Your task to perform on an android device: open the mobile data screen to see how much data has been used Image 0: 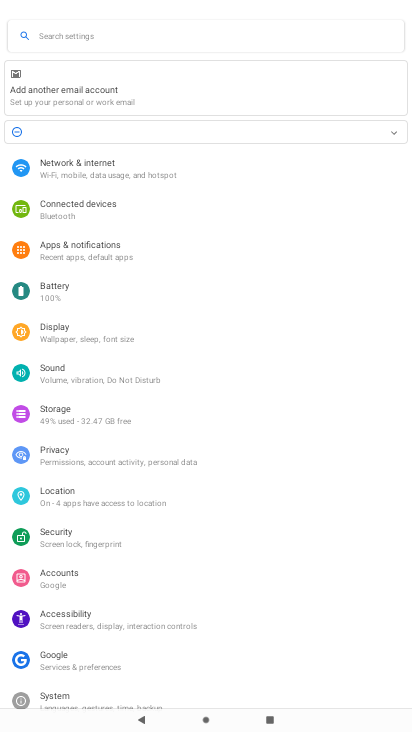
Step 0: press home button
Your task to perform on an android device: open the mobile data screen to see how much data has been used Image 1: 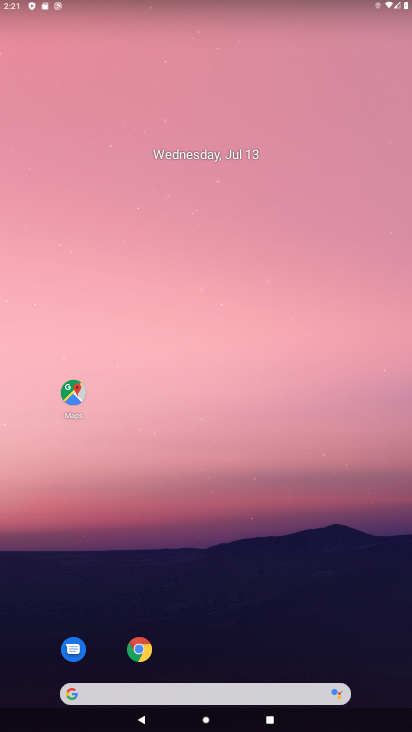
Step 1: drag from (235, 586) to (135, 8)
Your task to perform on an android device: open the mobile data screen to see how much data has been used Image 2: 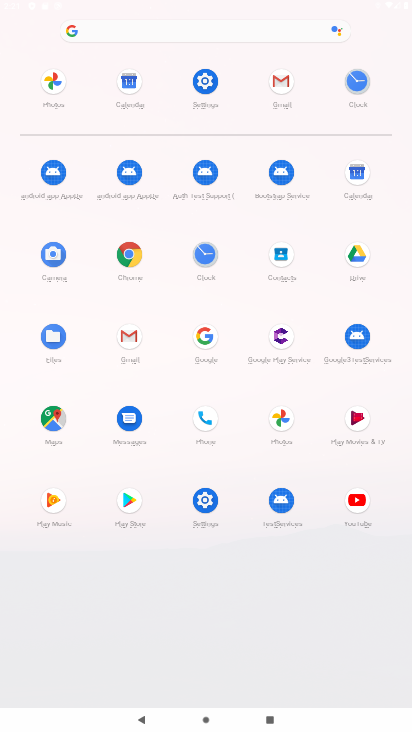
Step 2: click (204, 83)
Your task to perform on an android device: open the mobile data screen to see how much data has been used Image 3: 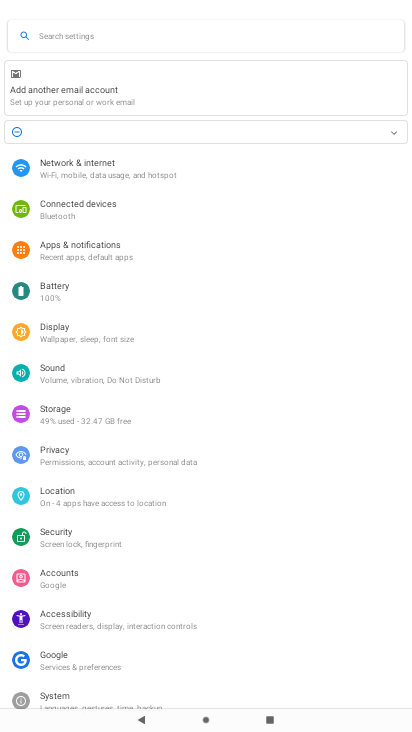
Step 3: click (77, 165)
Your task to perform on an android device: open the mobile data screen to see how much data has been used Image 4: 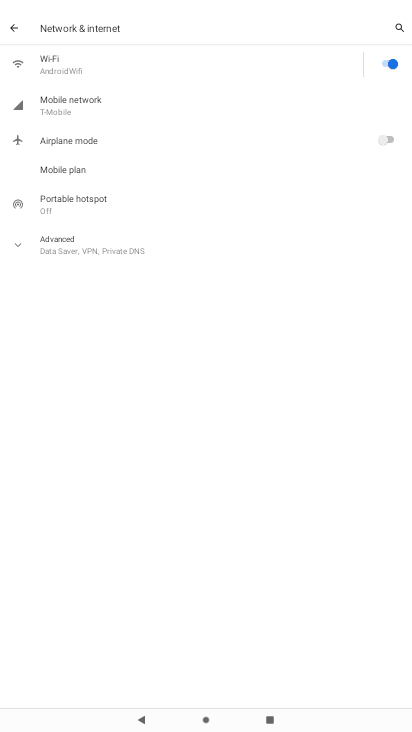
Step 4: click (61, 93)
Your task to perform on an android device: open the mobile data screen to see how much data has been used Image 5: 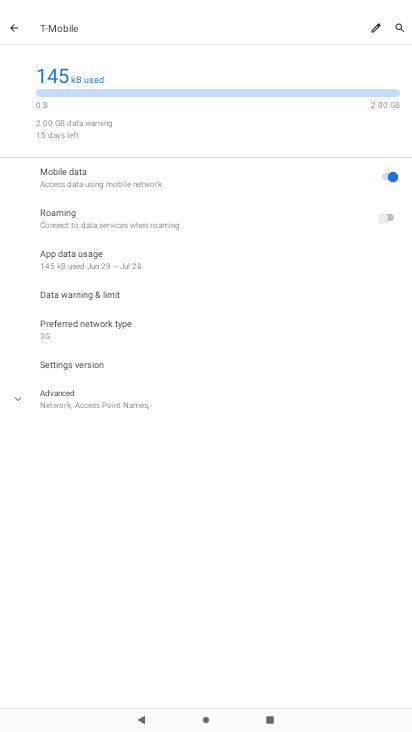
Step 5: task complete